Your task to perform on an android device: Go to Google maps Image 0: 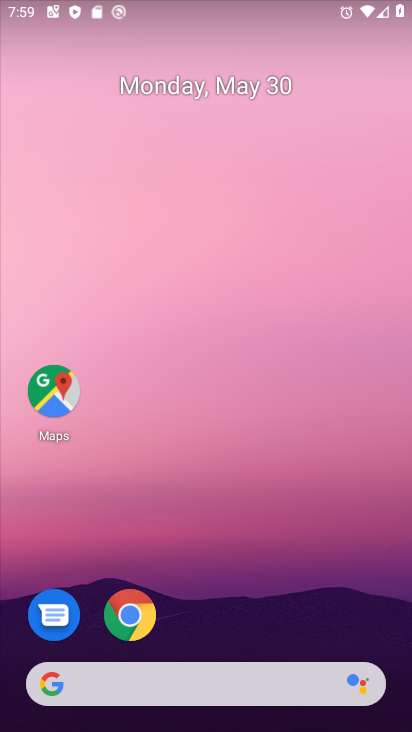
Step 0: drag from (270, 466) to (366, 378)
Your task to perform on an android device: Go to Google maps Image 1: 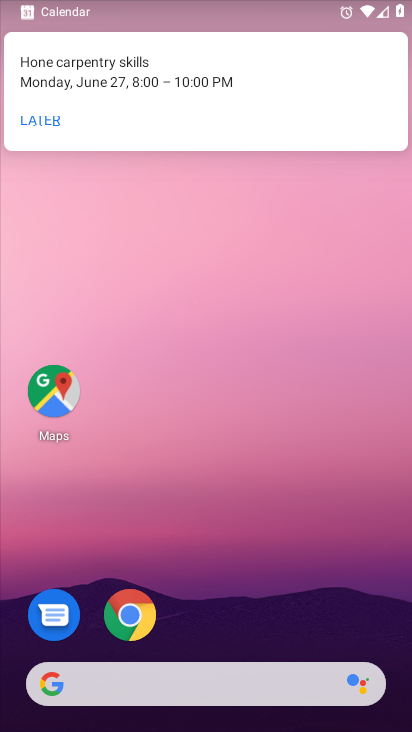
Step 1: drag from (267, 573) to (324, 67)
Your task to perform on an android device: Go to Google maps Image 2: 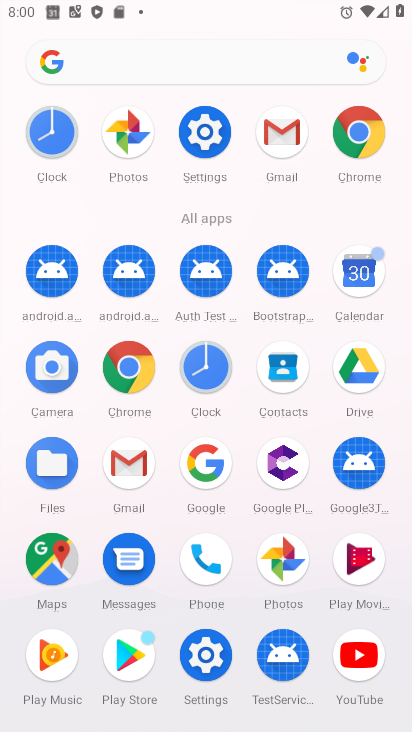
Step 2: click (52, 558)
Your task to perform on an android device: Go to Google maps Image 3: 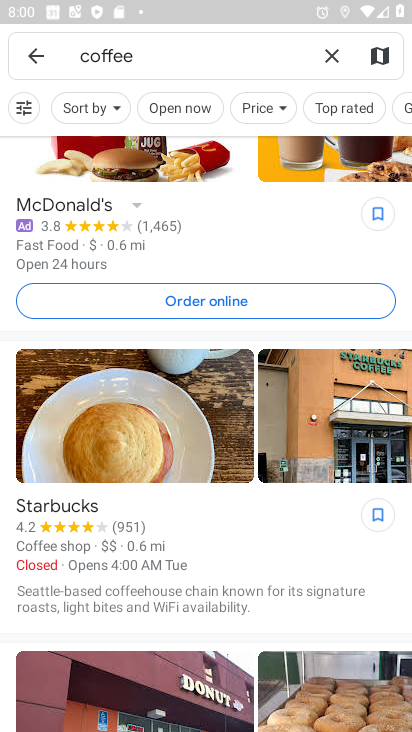
Step 3: task complete